Your task to perform on an android device: refresh tabs in the chrome app Image 0: 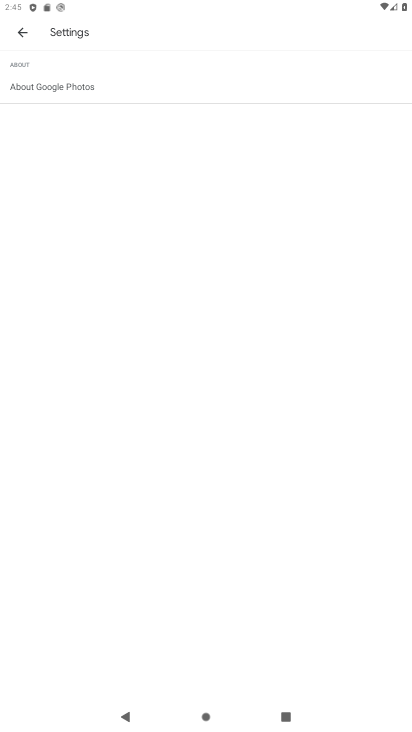
Step 0: press home button
Your task to perform on an android device: refresh tabs in the chrome app Image 1: 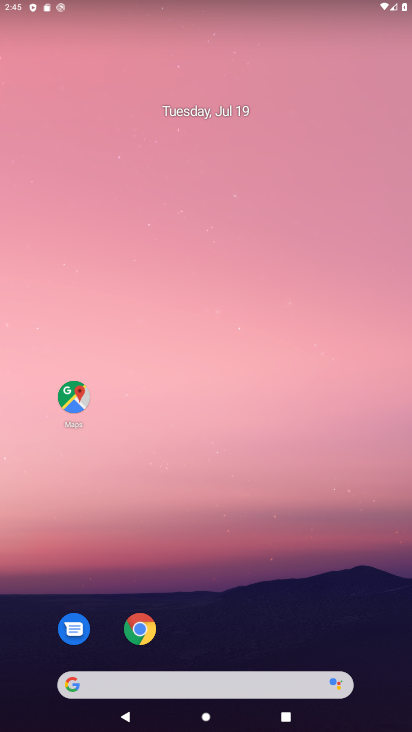
Step 1: click (148, 641)
Your task to perform on an android device: refresh tabs in the chrome app Image 2: 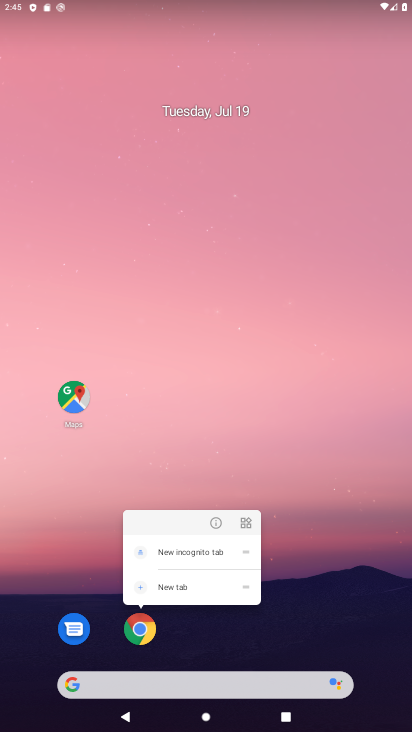
Step 2: click (145, 634)
Your task to perform on an android device: refresh tabs in the chrome app Image 3: 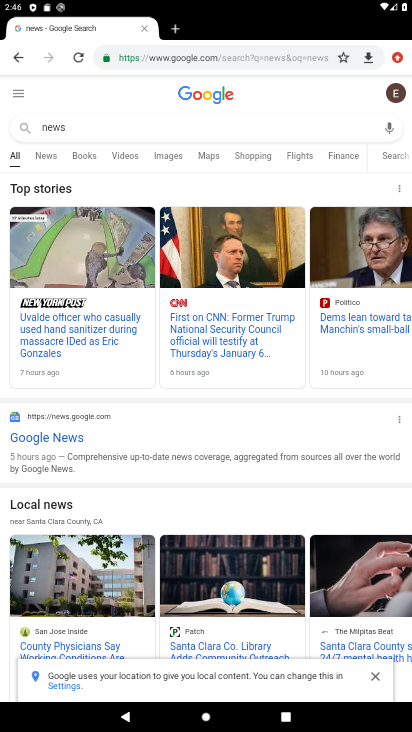
Step 3: drag from (402, 59) to (77, 56)
Your task to perform on an android device: refresh tabs in the chrome app Image 4: 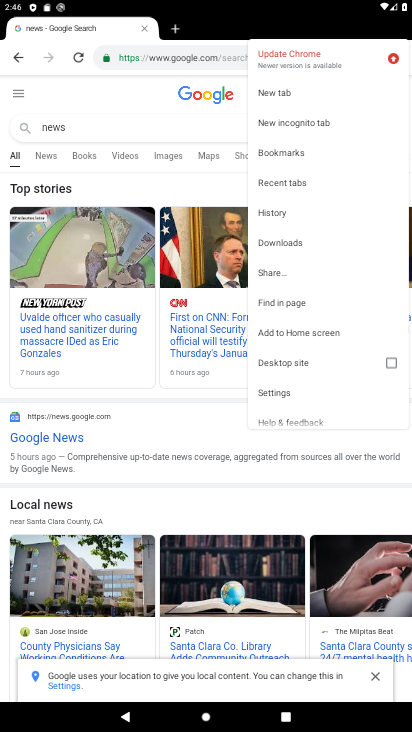
Step 4: click (77, 56)
Your task to perform on an android device: refresh tabs in the chrome app Image 5: 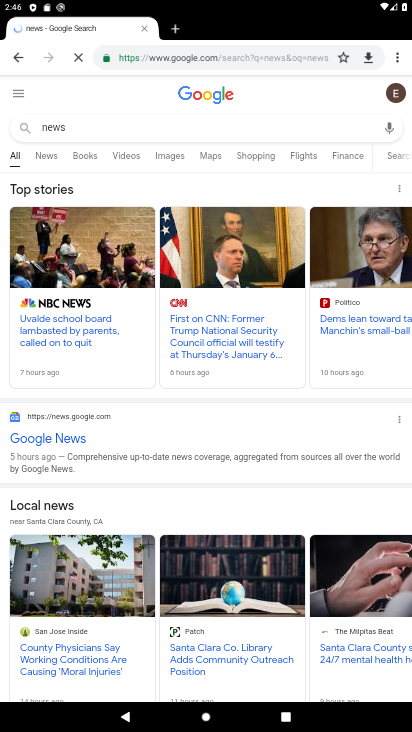
Step 5: task complete